Your task to perform on an android device: set the stopwatch Image 0: 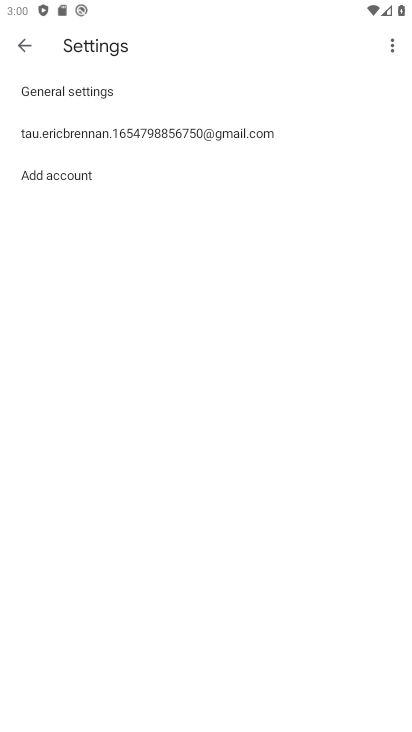
Step 0: click (31, 45)
Your task to perform on an android device: set the stopwatch Image 1: 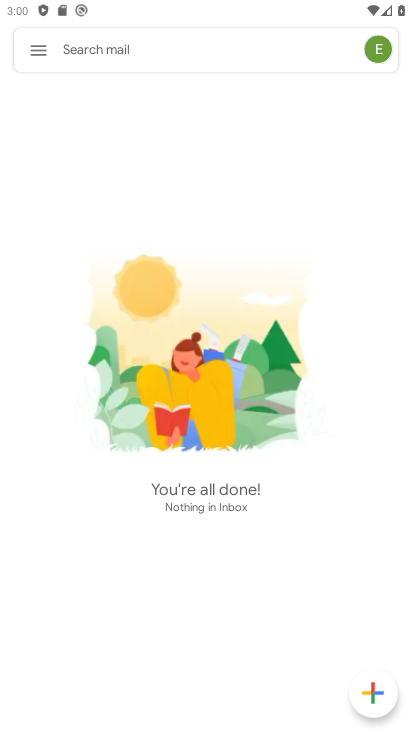
Step 1: press back button
Your task to perform on an android device: set the stopwatch Image 2: 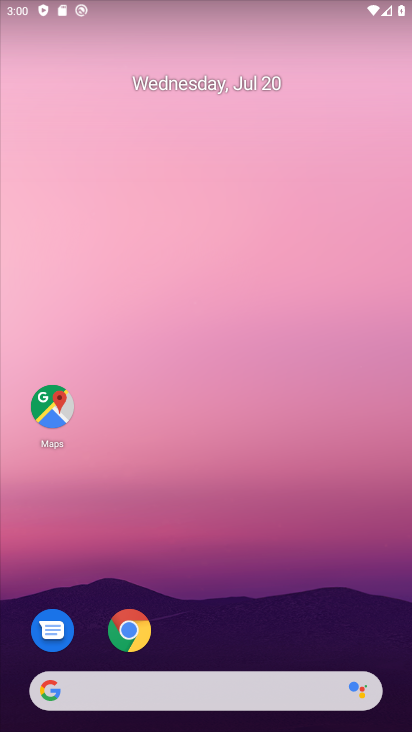
Step 2: drag from (227, 560) to (201, 86)
Your task to perform on an android device: set the stopwatch Image 3: 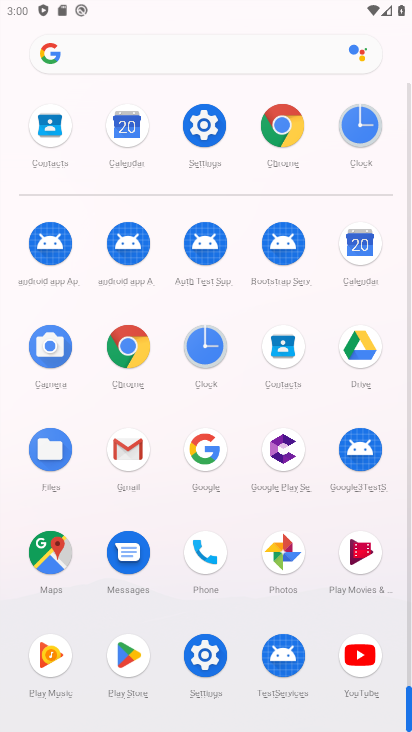
Step 3: click (205, 341)
Your task to perform on an android device: set the stopwatch Image 4: 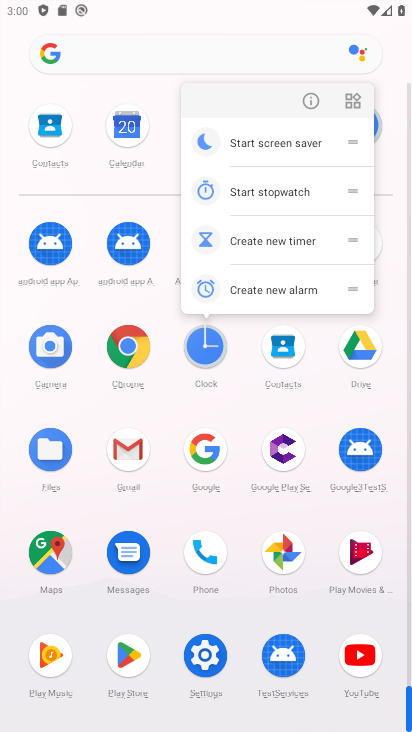
Step 4: click (192, 350)
Your task to perform on an android device: set the stopwatch Image 5: 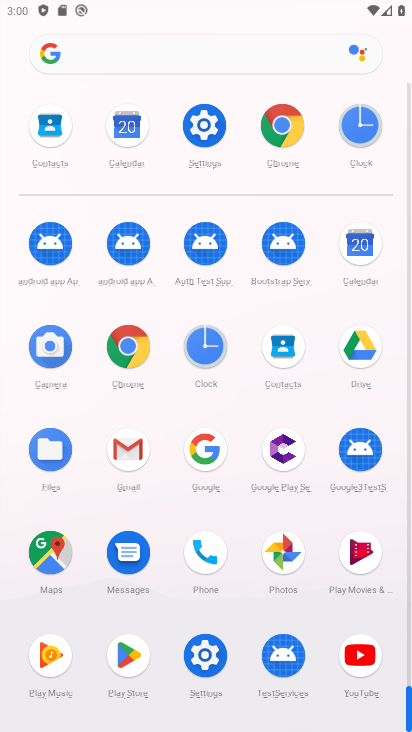
Step 5: click (194, 348)
Your task to perform on an android device: set the stopwatch Image 6: 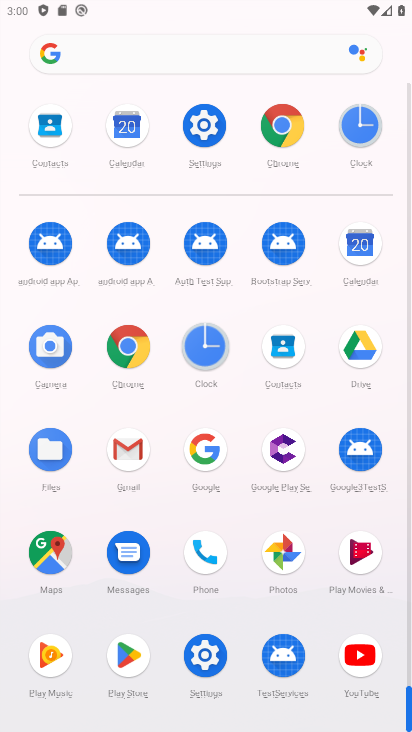
Step 6: click (195, 347)
Your task to perform on an android device: set the stopwatch Image 7: 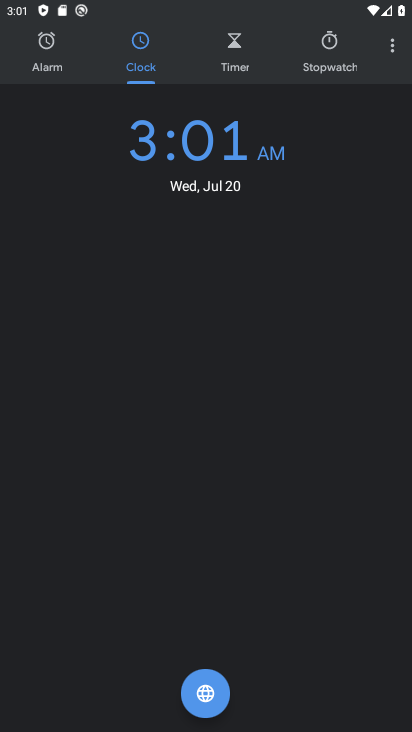
Step 7: click (323, 51)
Your task to perform on an android device: set the stopwatch Image 8: 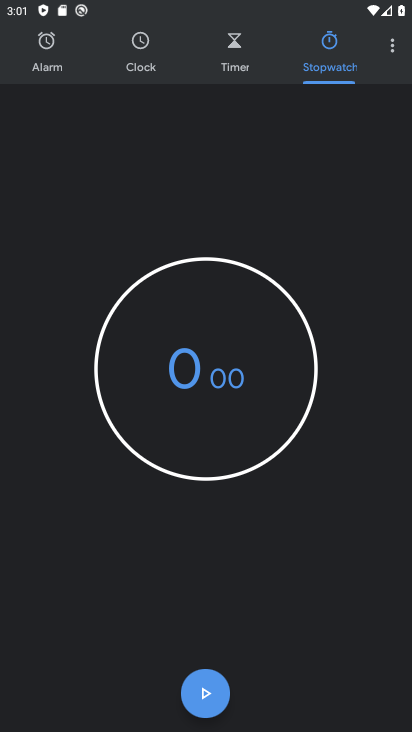
Step 8: click (216, 692)
Your task to perform on an android device: set the stopwatch Image 9: 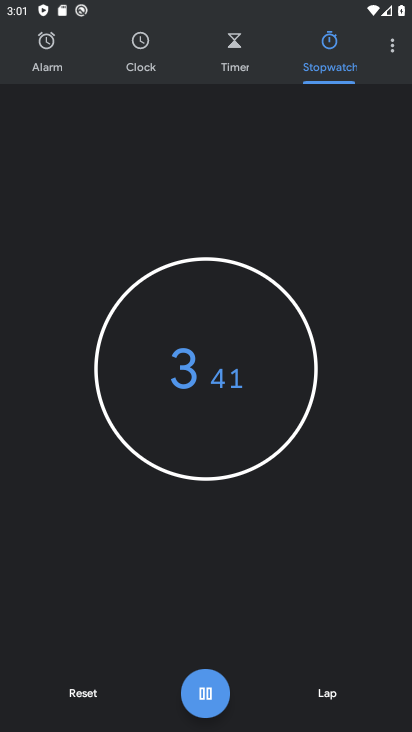
Step 9: click (201, 692)
Your task to perform on an android device: set the stopwatch Image 10: 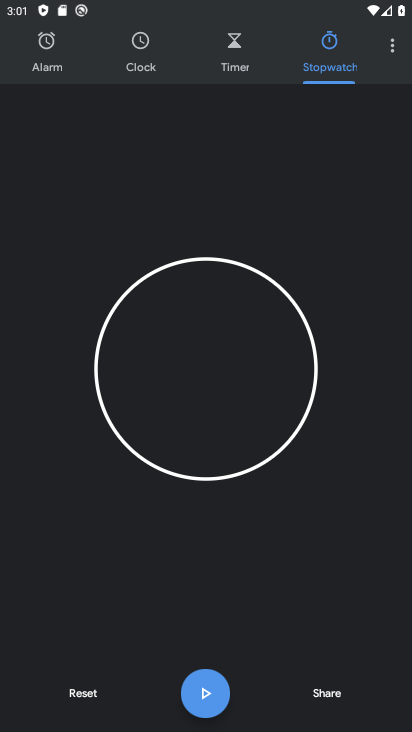
Step 10: task complete